Your task to perform on an android device: check data usage Image 0: 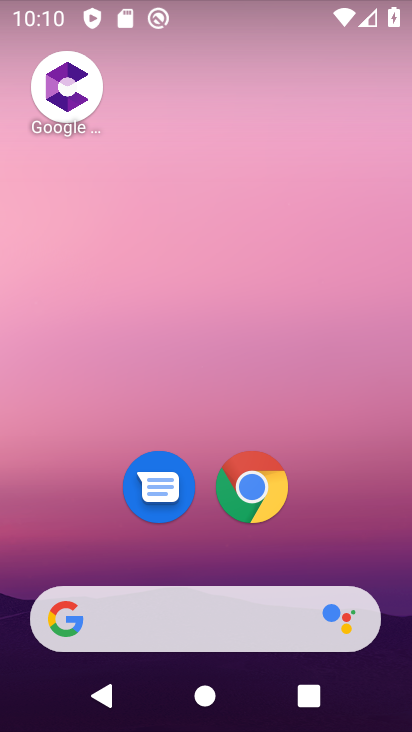
Step 0: drag from (346, 565) to (266, 24)
Your task to perform on an android device: check data usage Image 1: 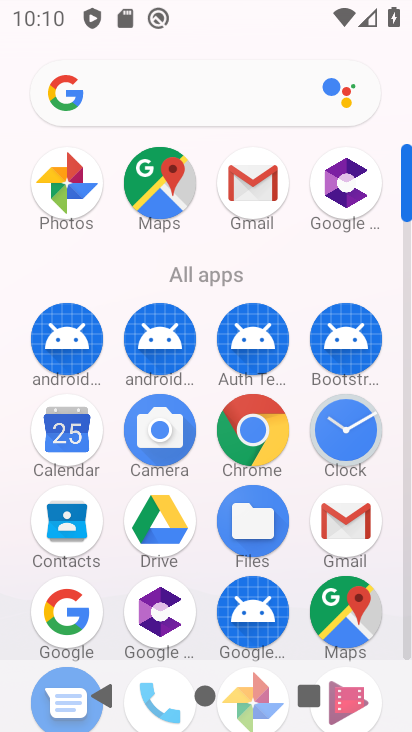
Step 1: click (408, 643)
Your task to perform on an android device: check data usage Image 2: 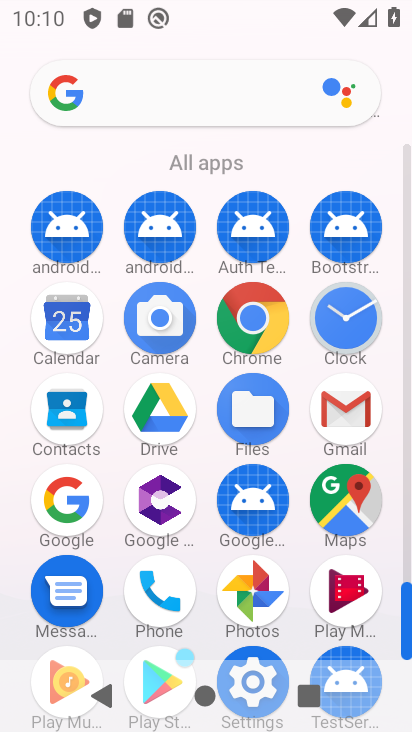
Step 2: click (248, 656)
Your task to perform on an android device: check data usage Image 3: 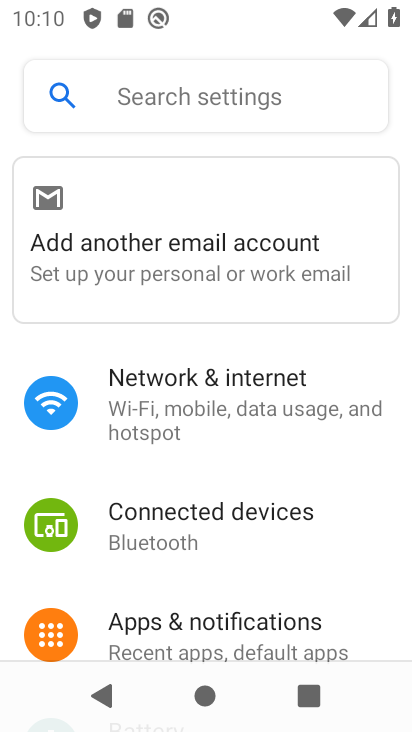
Step 3: click (224, 397)
Your task to perform on an android device: check data usage Image 4: 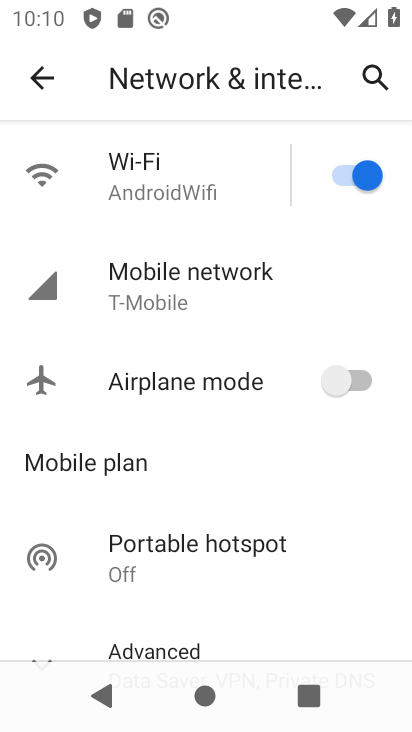
Step 4: click (126, 148)
Your task to perform on an android device: check data usage Image 5: 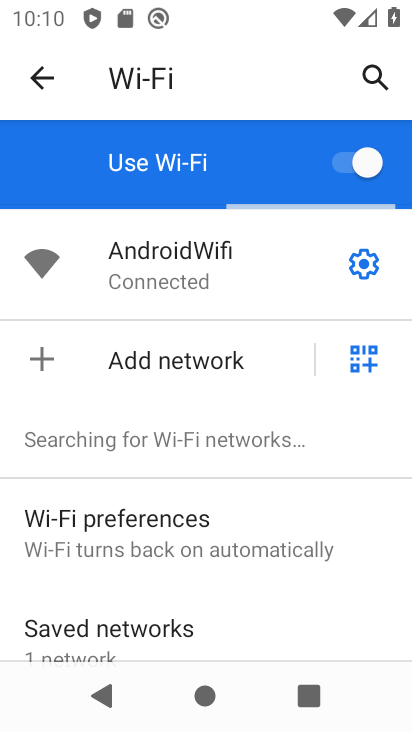
Step 5: drag from (207, 609) to (193, 187)
Your task to perform on an android device: check data usage Image 6: 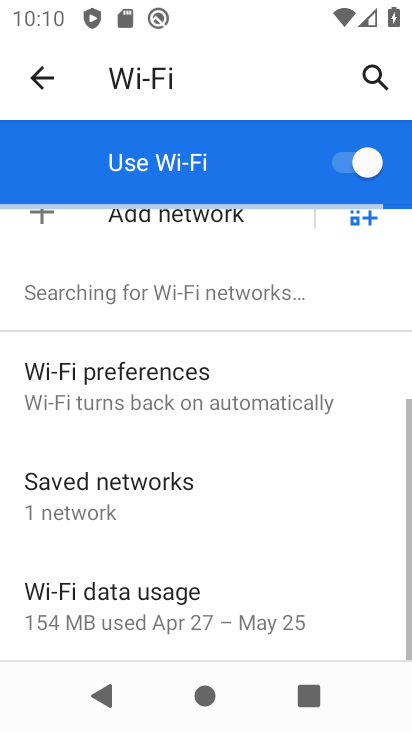
Step 6: click (209, 613)
Your task to perform on an android device: check data usage Image 7: 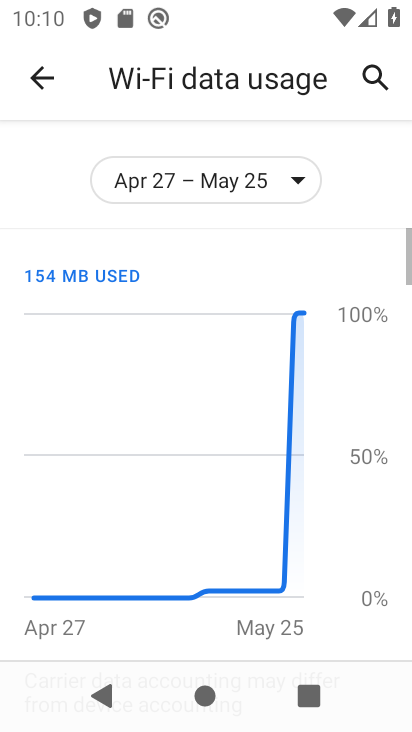
Step 7: task complete